Your task to perform on an android device: Go to CNN.com Image 0: 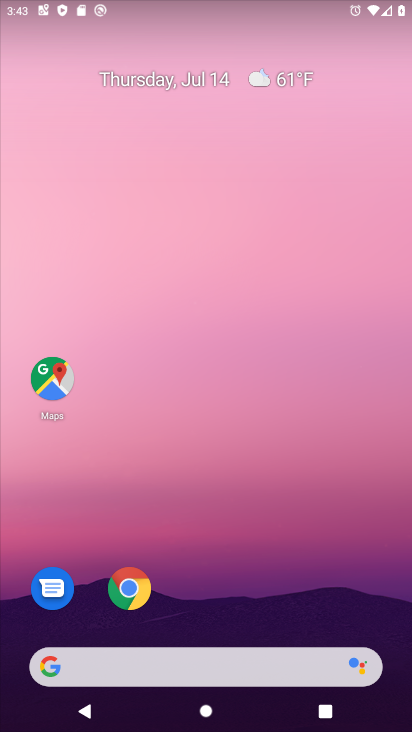
Step 0: press home button
Your task to perform on an android device: Go to CNN.com Image 1: 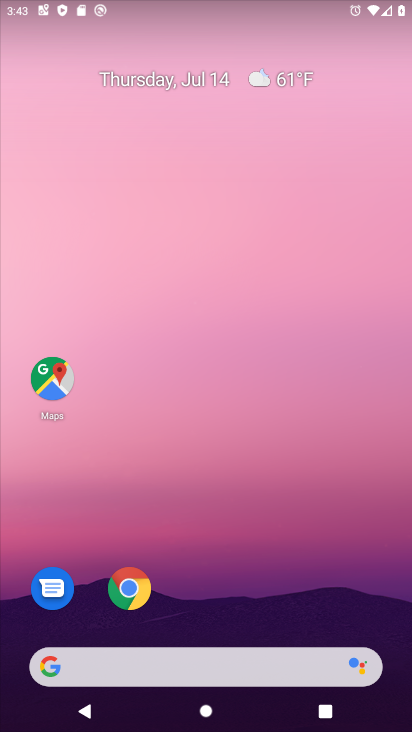
Step 1: click (48, 667)
Your task to perform on an android device: Go to CNN.com Image 2: 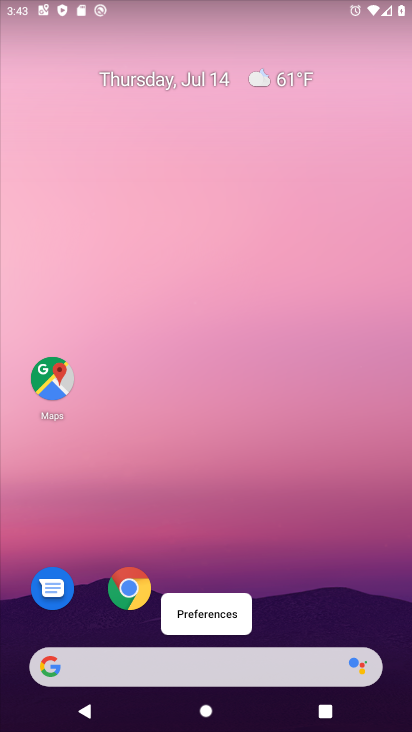
Step 2: click (39, 670)
Your task to perform on an android device: Go to CNN.com Image 3: 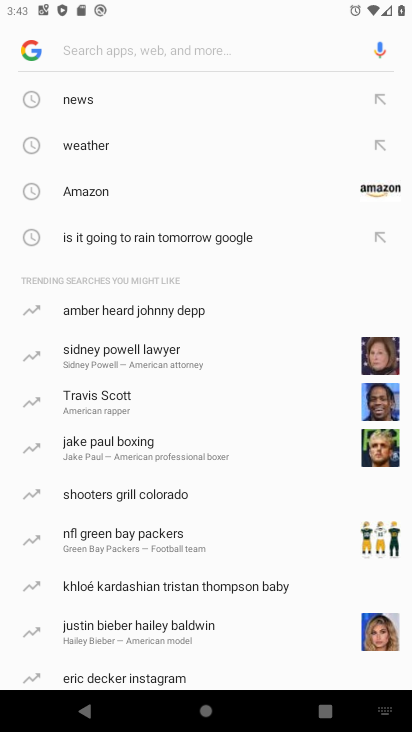
Step 3: type "CNN.com"
Your task to perform on an android device: Go to CNN.com Image 4: 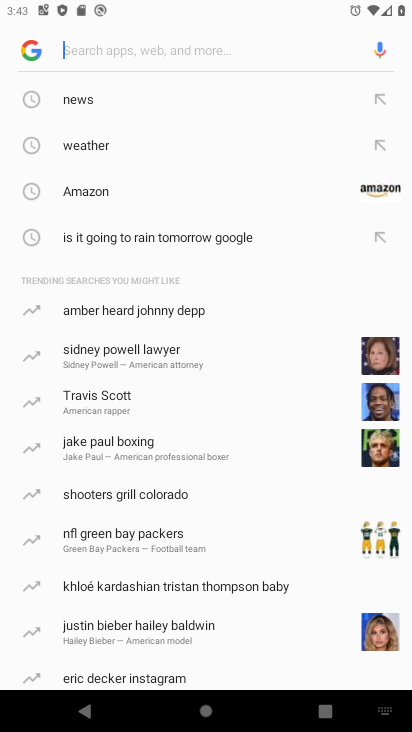
Step 4: click (105, 48)
Your task to perform on an android device: Go to CNN.com Image 5: 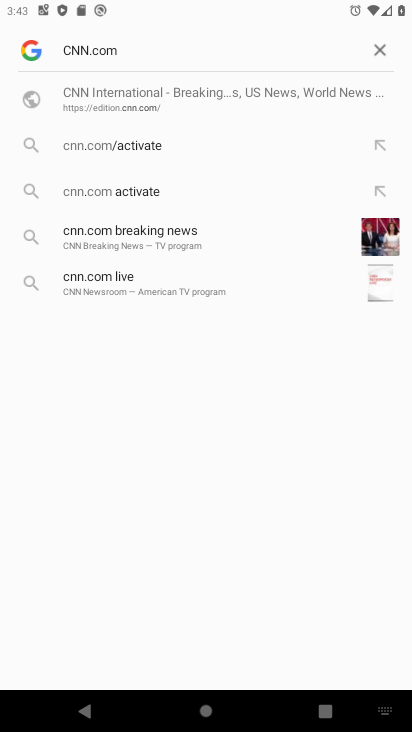
Step 5: press enter
Your task to perform on an android device: Go to CNN.com Image 6: 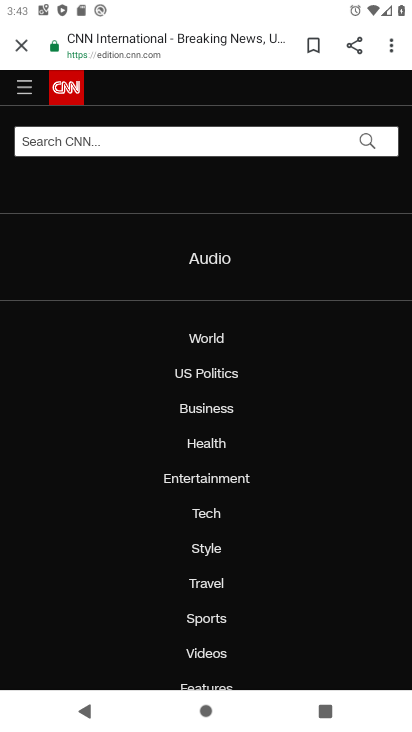
Step 6: task complete